Your task to perform on an android device: install app "AliExpress" Image 0: 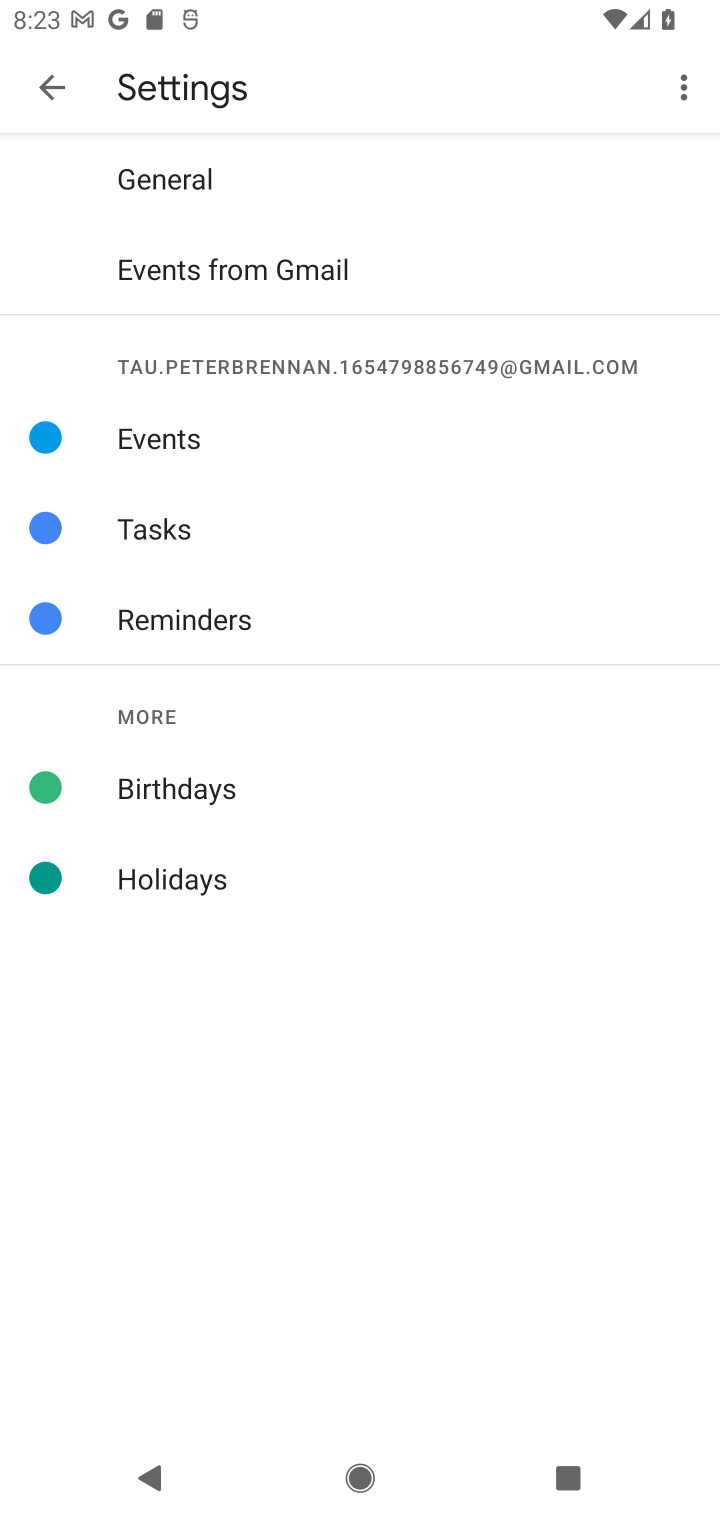
Step 0: press home button
Your task to perform on an android device: install app "AliExpress" Image 1: 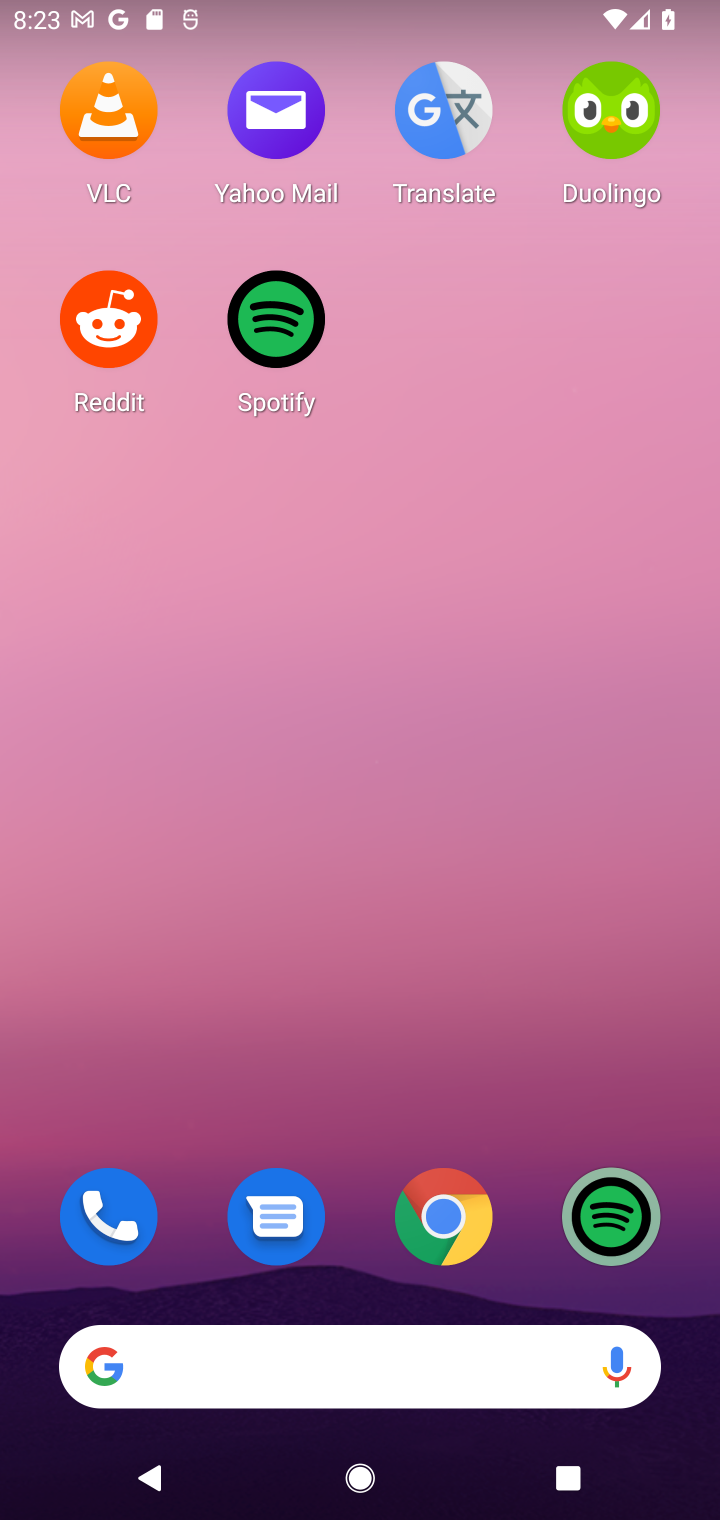
Step 1: press home button
Your task to perform on an android device: install app "AliExpress" Image 2: 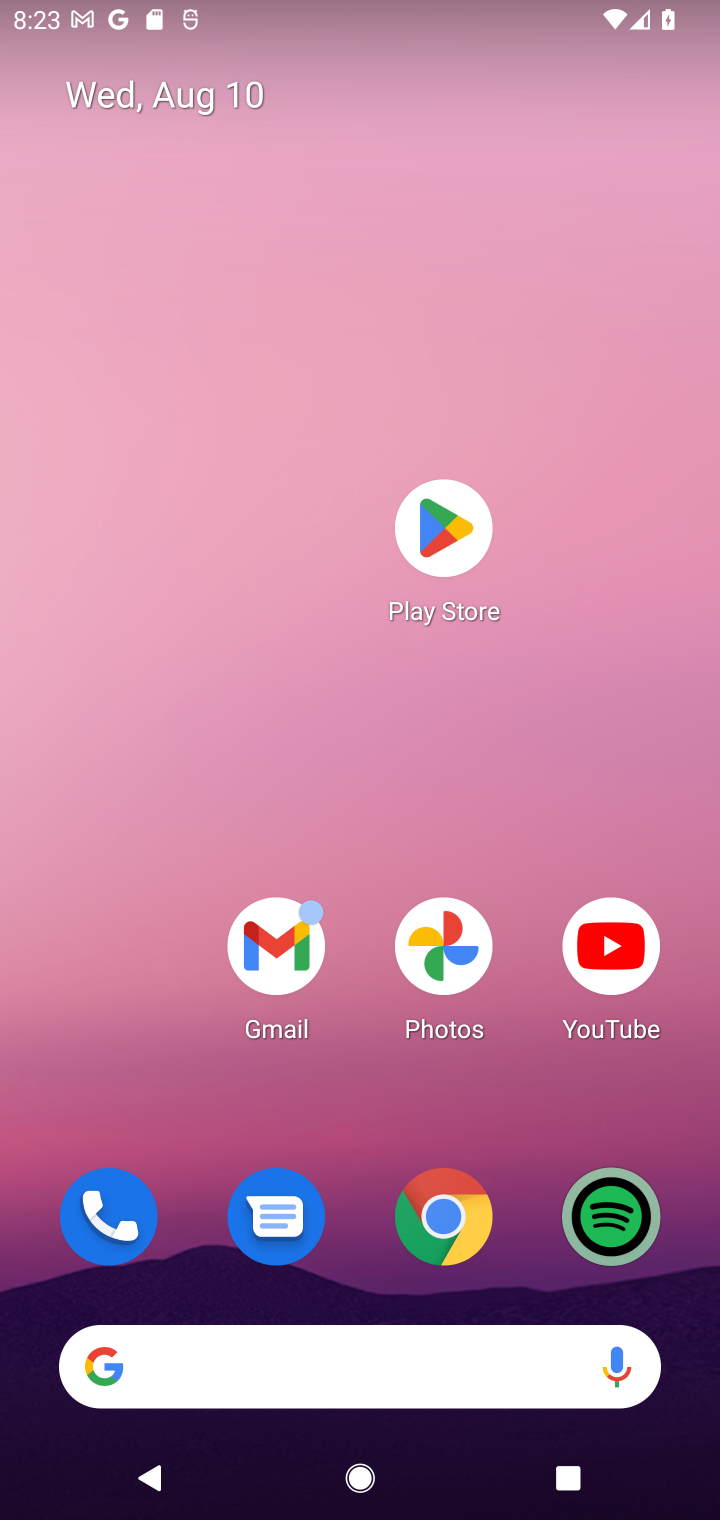
Step 2: click (447, 514)
Your task to perform on an android device: install app "AliExpress" Image 3: 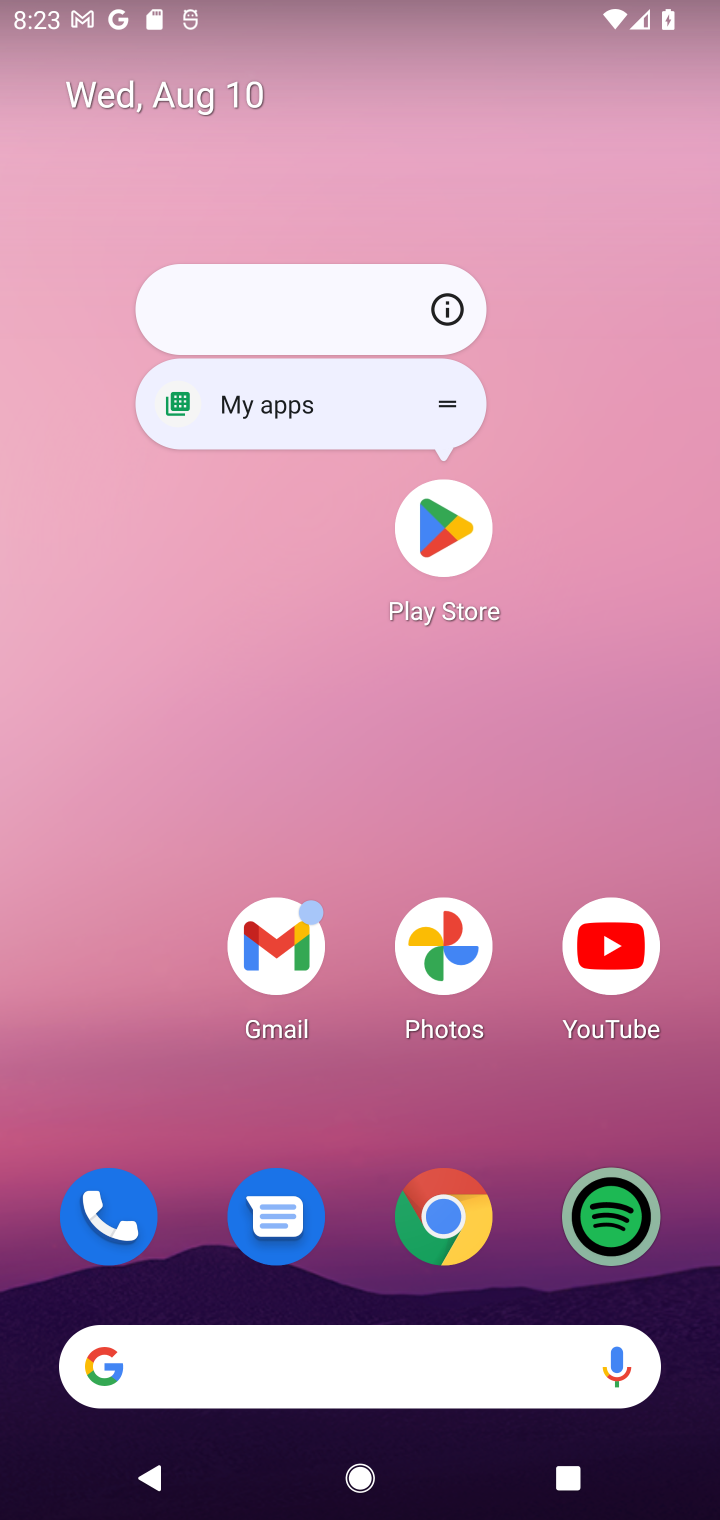
Step 3: click (440, 538)
Your task to perform on an android device: install app "AliExpress" Image 4: 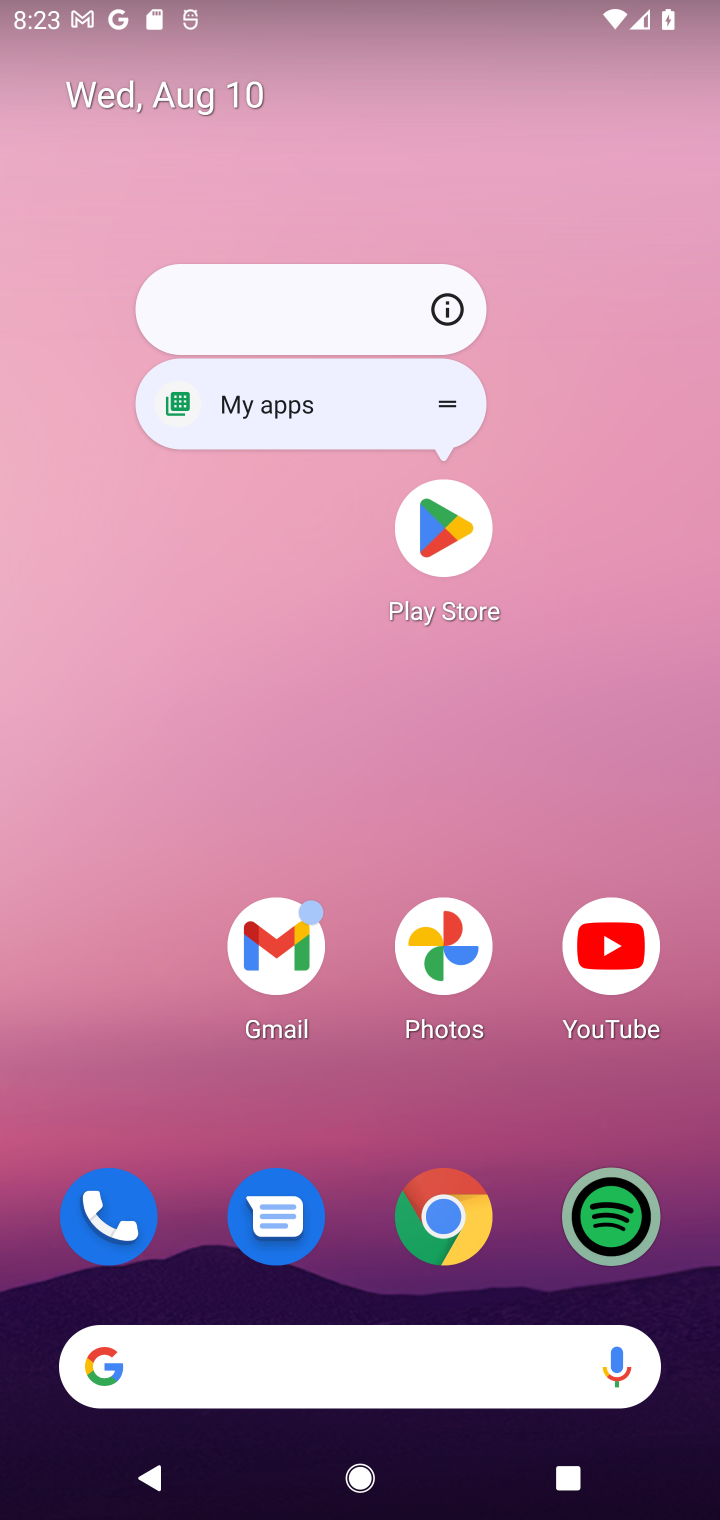
Step 4: click (440, 540)
Your task to perform on an android device: install app "AliExpress" Image 5: 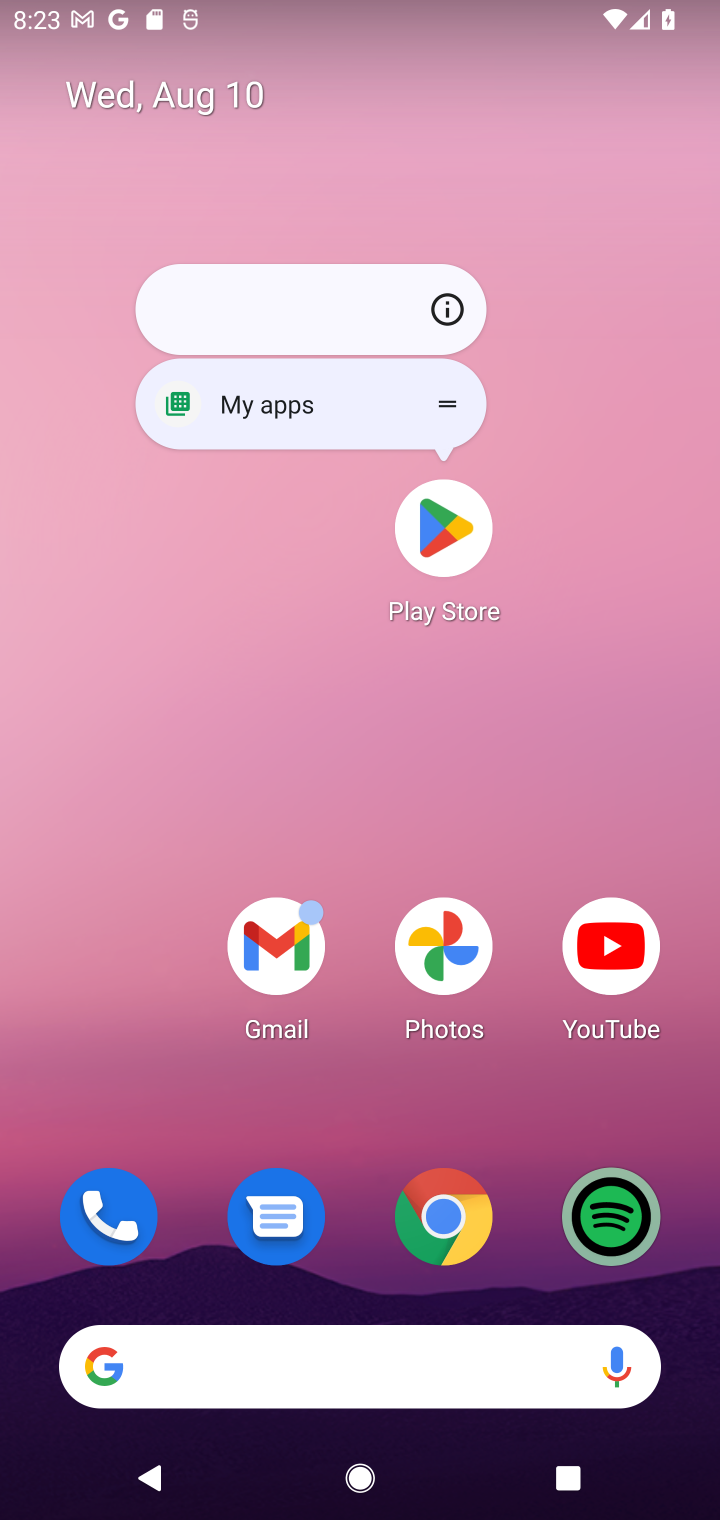
Step 5: click (440, 540)
Your task to perform on an android device: install app "AliExpress" Image 6: 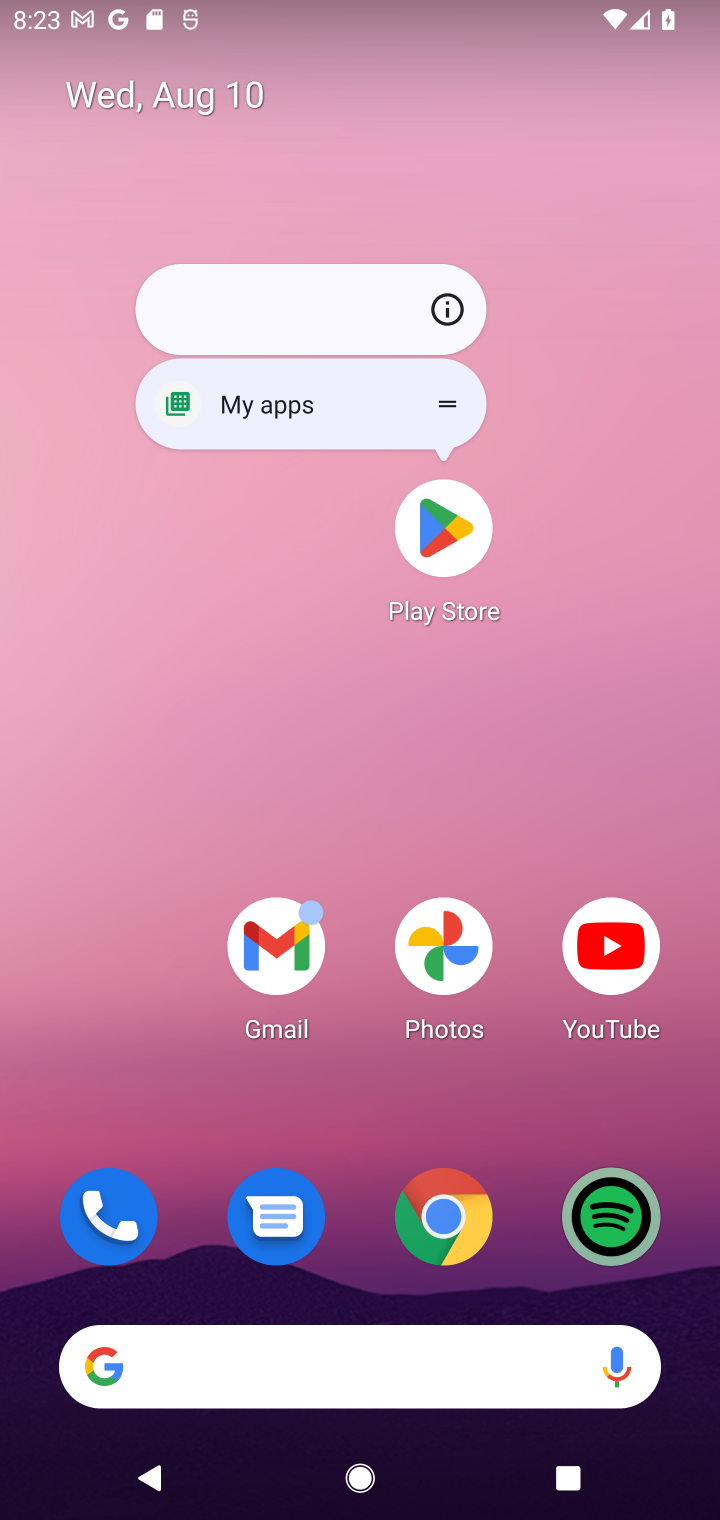
Step 6: click (440, 546)
Your task to perform on an android device: install app "AliExpress" Image 7: 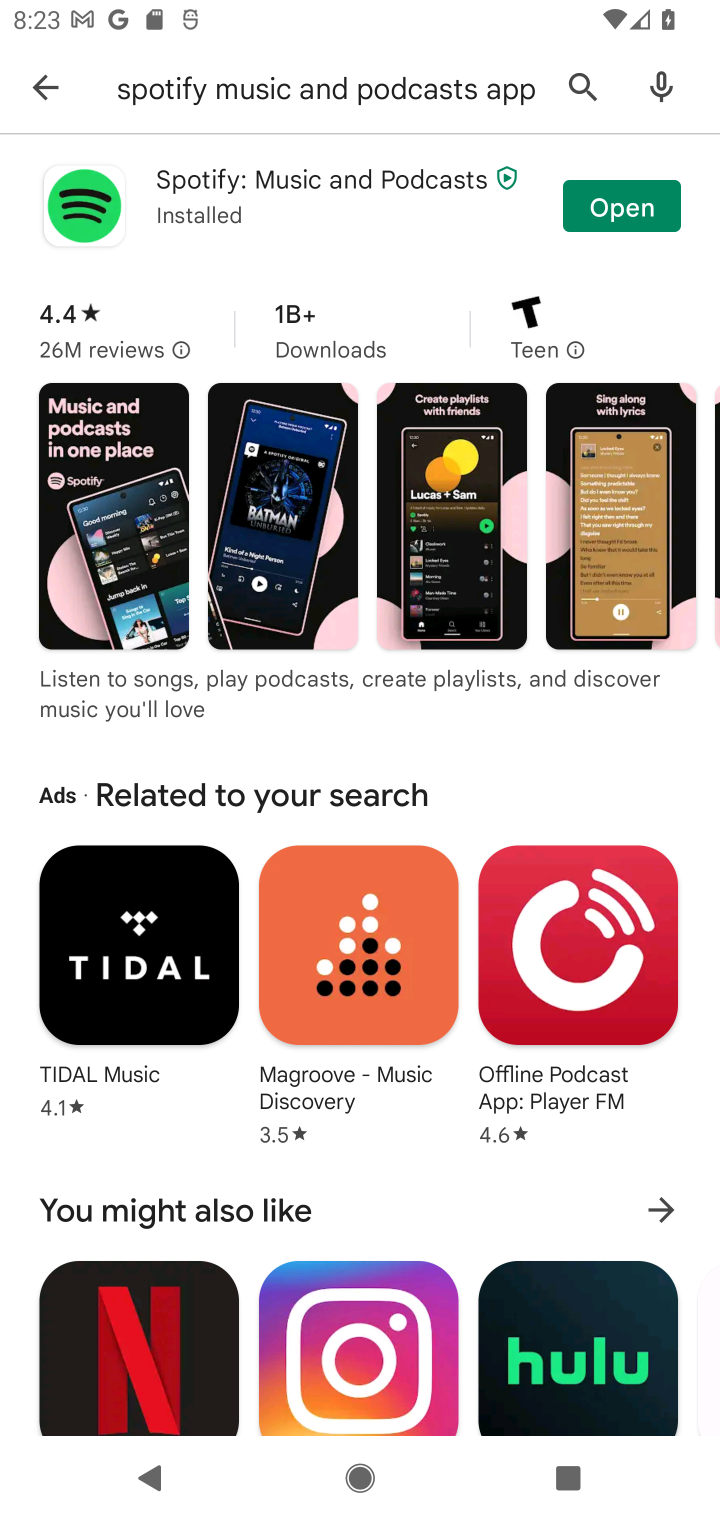
Step 7: click (584, 73)
Your task to perform on an android device: install app "AliExpress" Image 8: 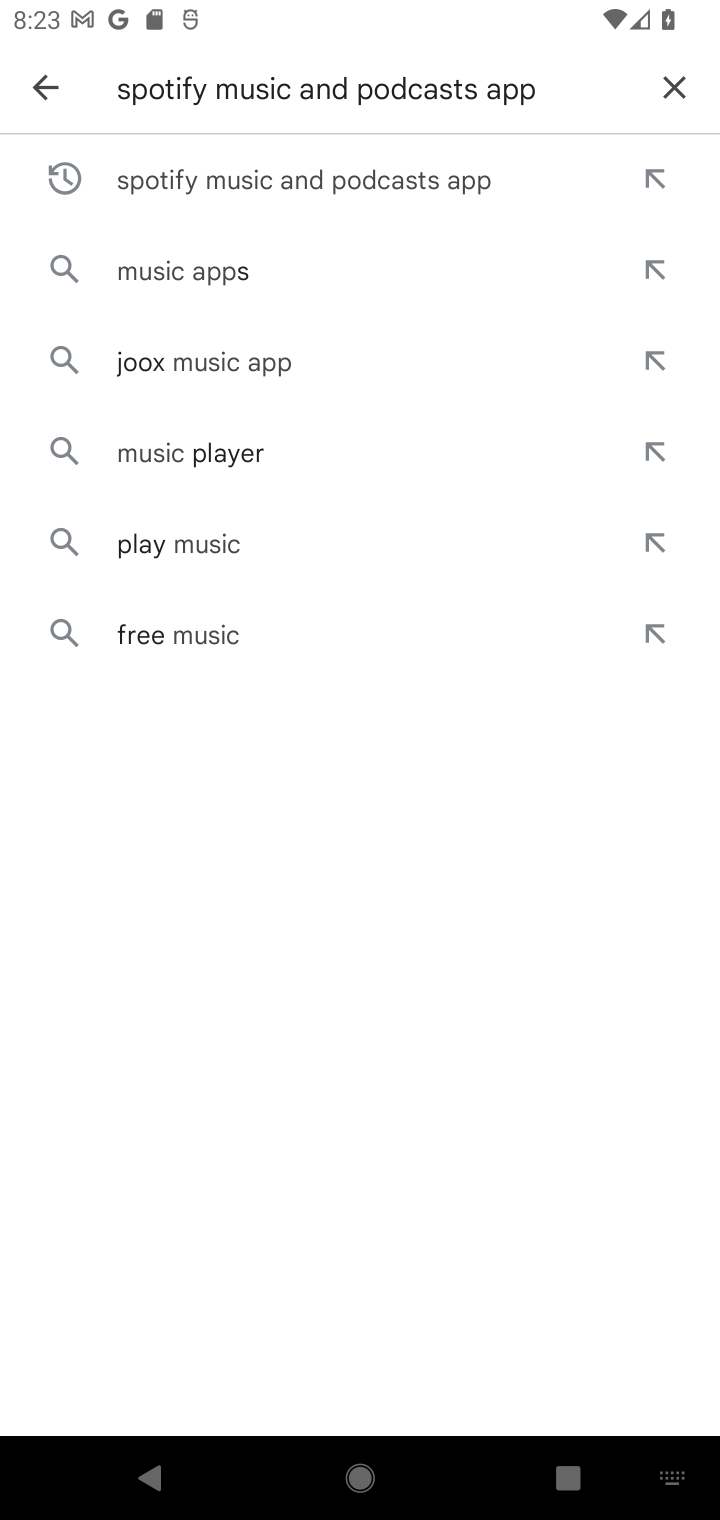
Step 8: click (665, 90)
Your task to perform on an android device: install app "AliExpress" Image 9: 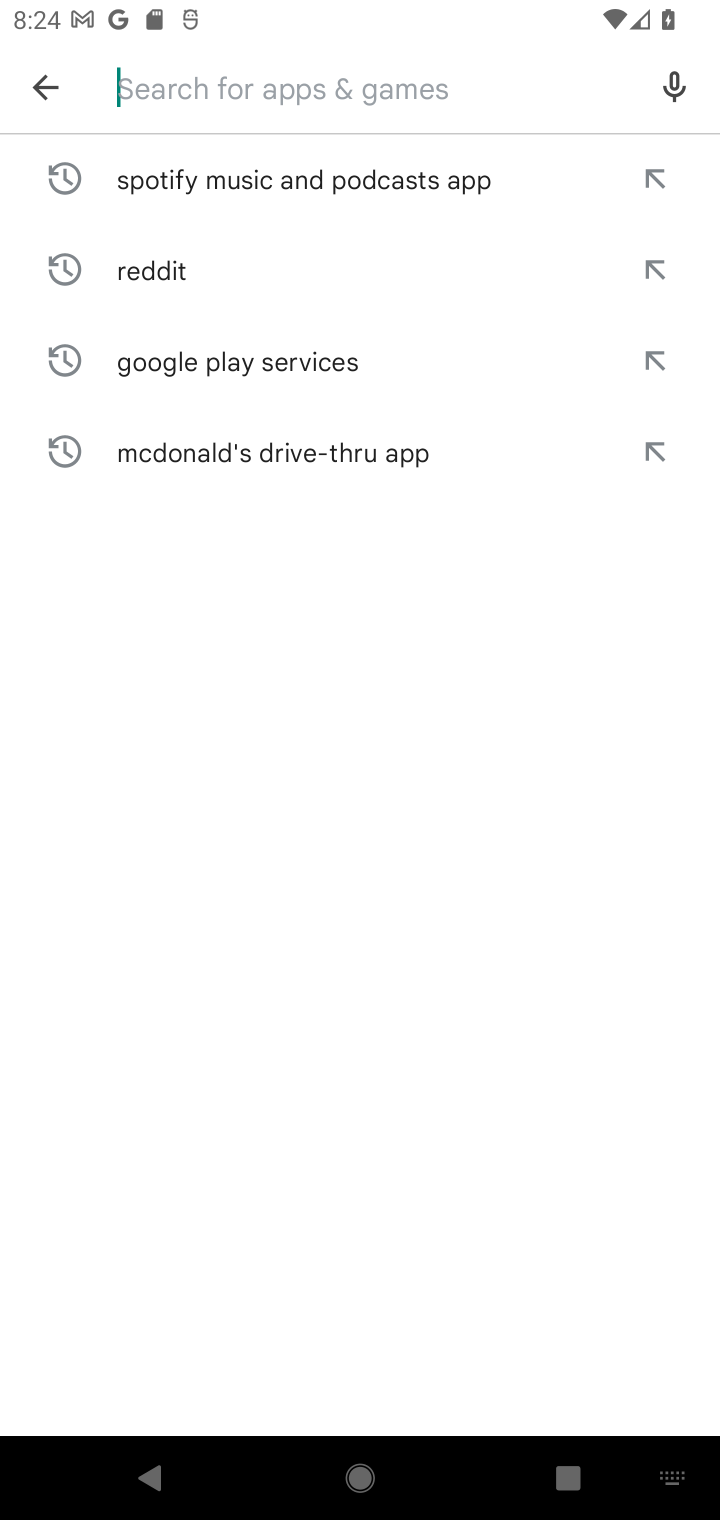
Step 9: type "AliExpress"
Your task to perform on an android device: install app "AliExpress" Image 10: 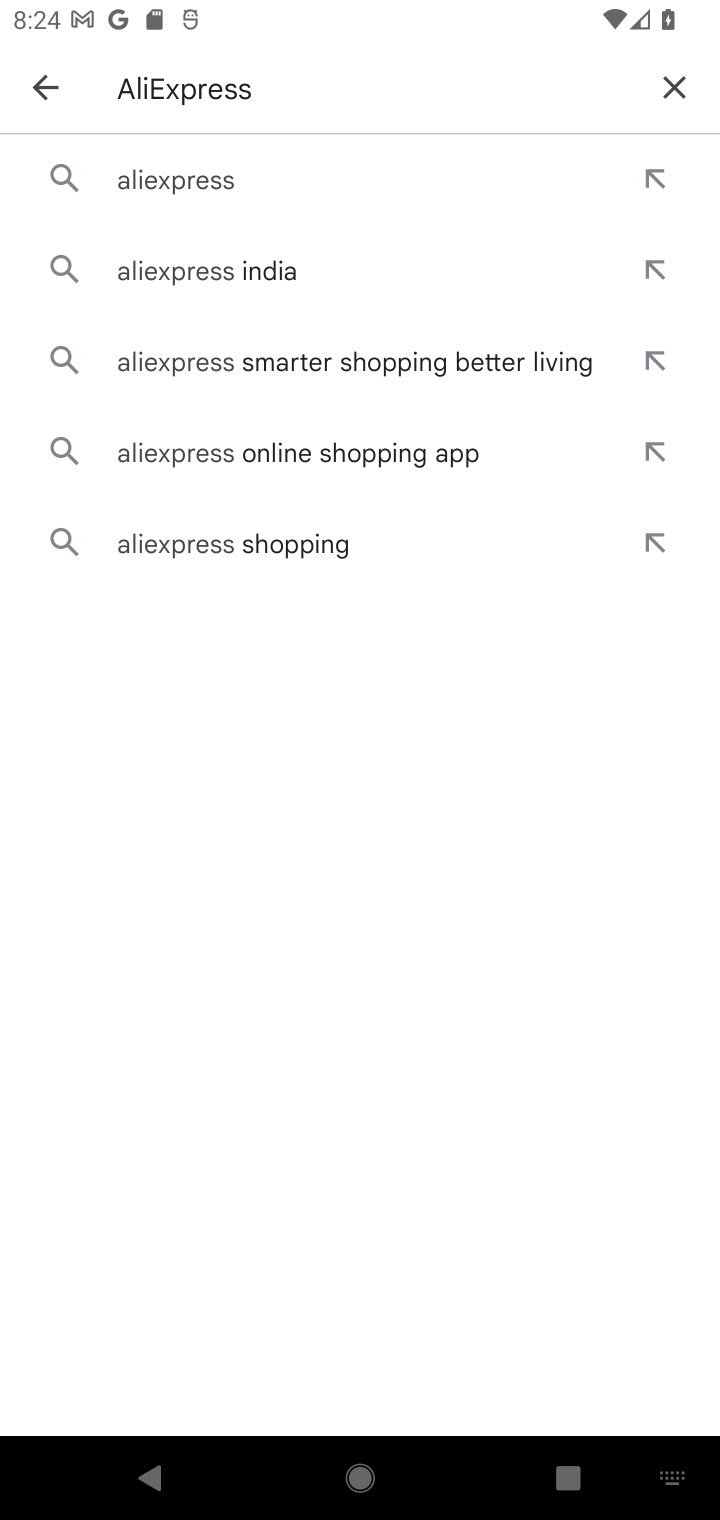
Step 10: click (235, 178)
Your task to perform on an android device: install app "AliExpress" Image 11: 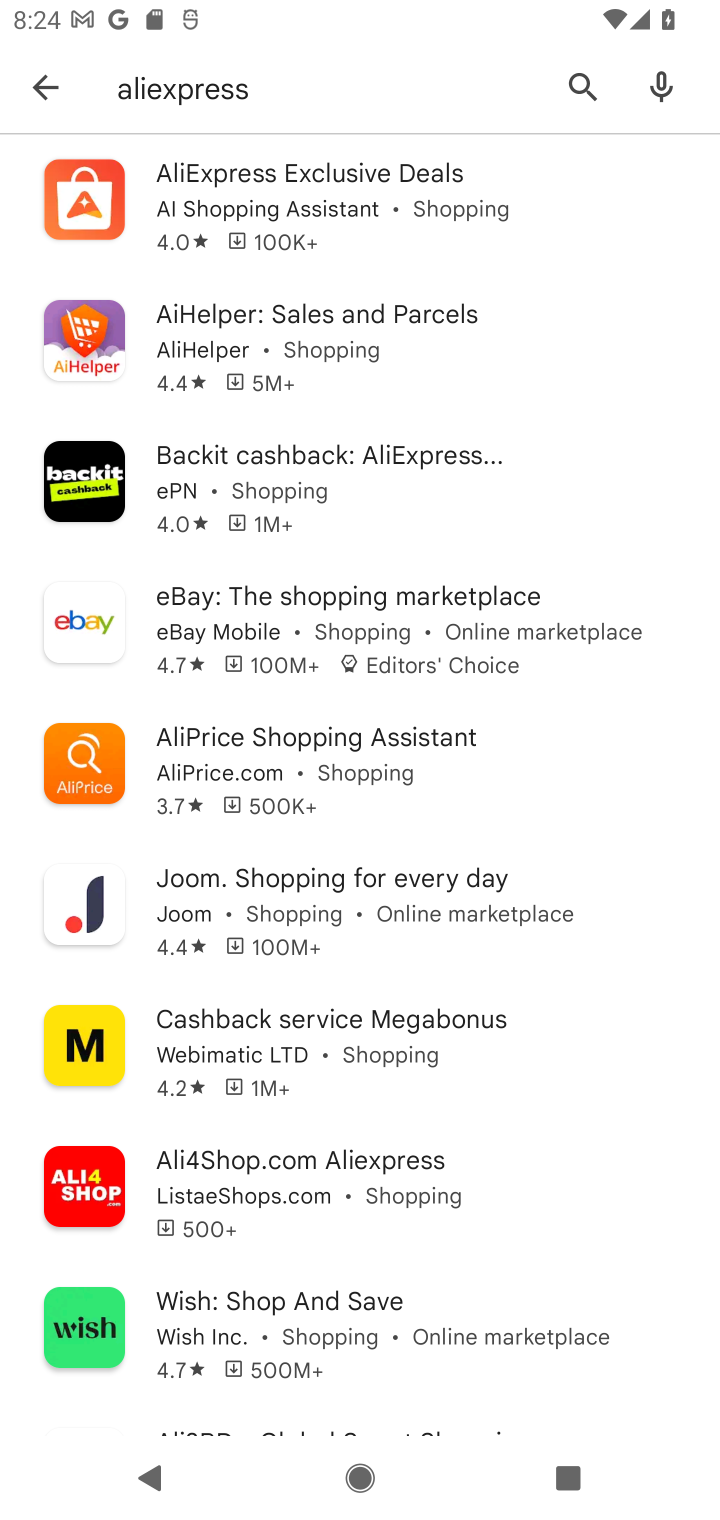
Step 11: click (320, 228)
Your task to perform on an android device: install app "AliExpress" Image 12: 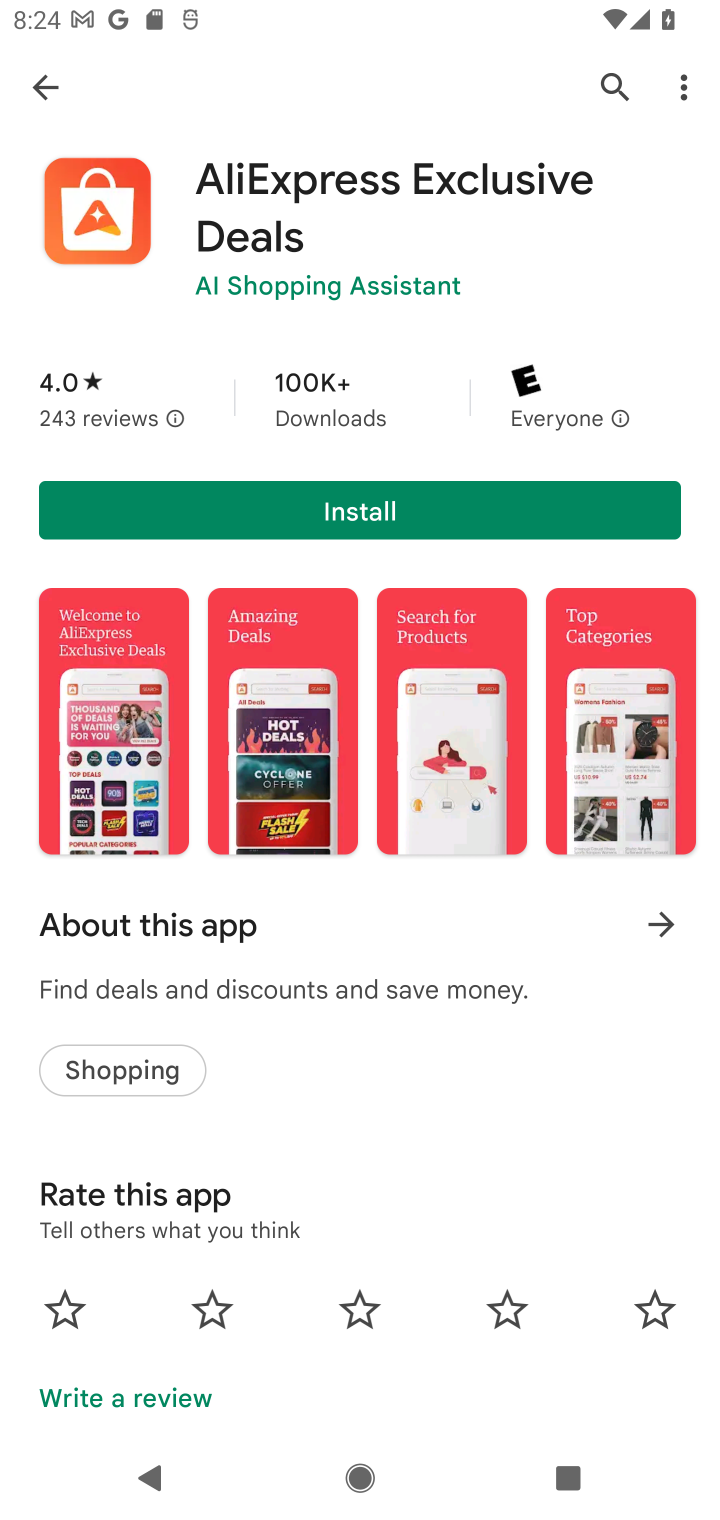
Step 12: click (360, 500)
Your task to perform on an android device: install app "AliExpress" Image 13: 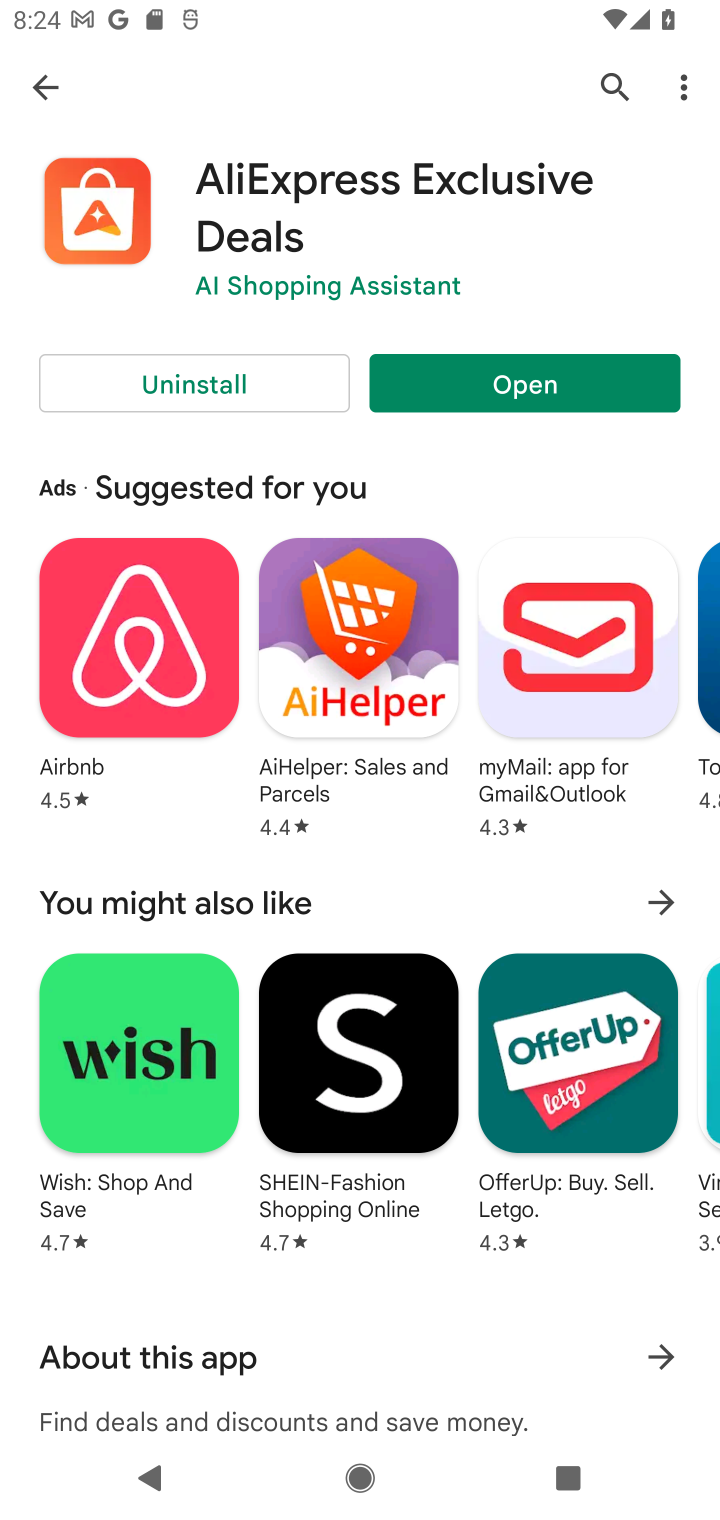
Step 13: task complete